Your task to perform on an android device: see tabs open on other devices in the chrome app Image 0: 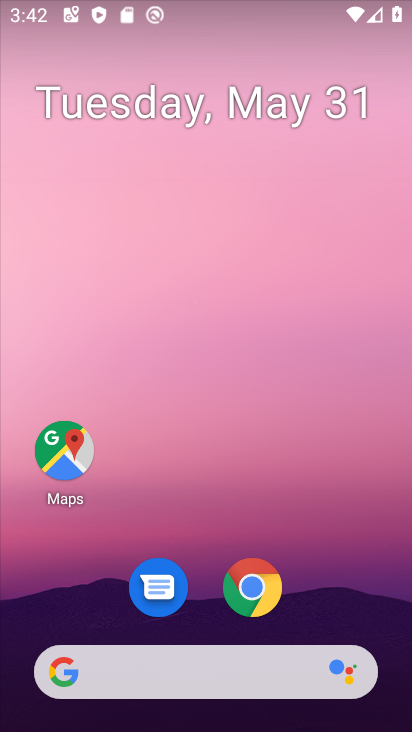
Step 0: click (254, 583)
Your task to perform on an android device: see tabs open on other devices in the chrome app Image 1: 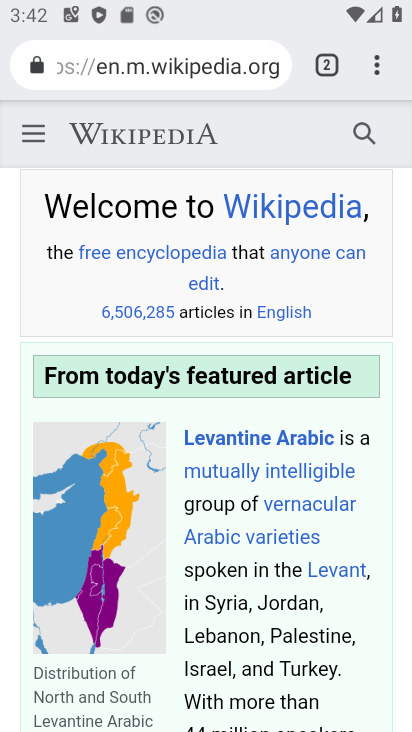
Step 1: click (382, 61)
Your task to perform on an android device: see tabs open on other devices in the chrome app Image 2: 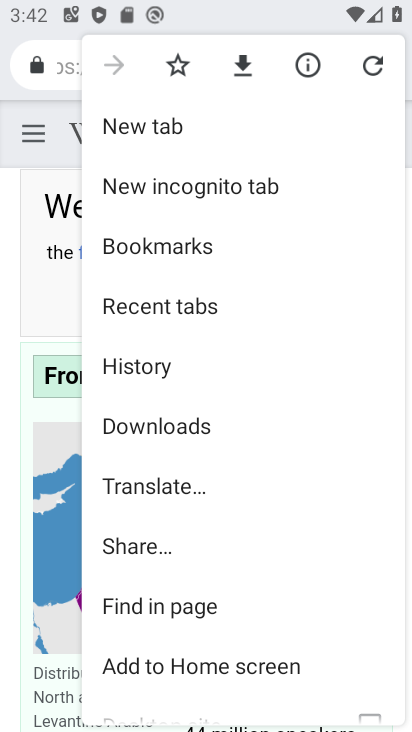
Step 2: click (142, 300)
Your task to perform on an android device: see tabs open on other devices in the chrome app Image 3: 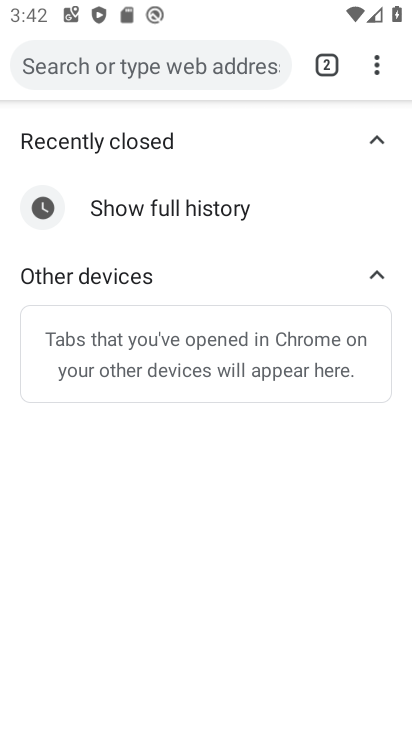
Step 3: task complete